Your task to perform on an android device: Turn on the flashlight Image 0: 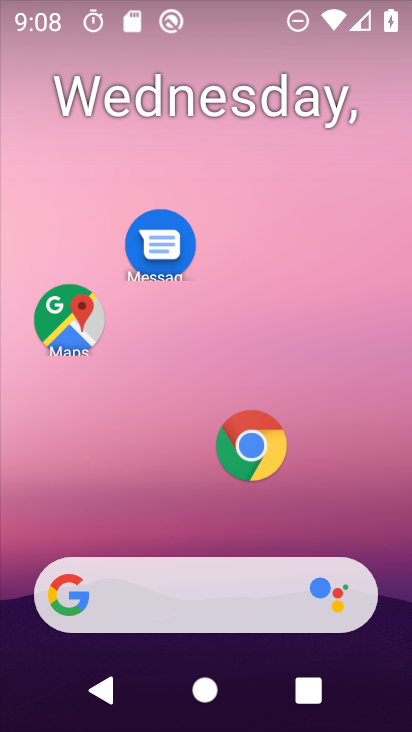
Step 0: press home button
Your task to perform on an android device: Turn on the flashlight Image 1: 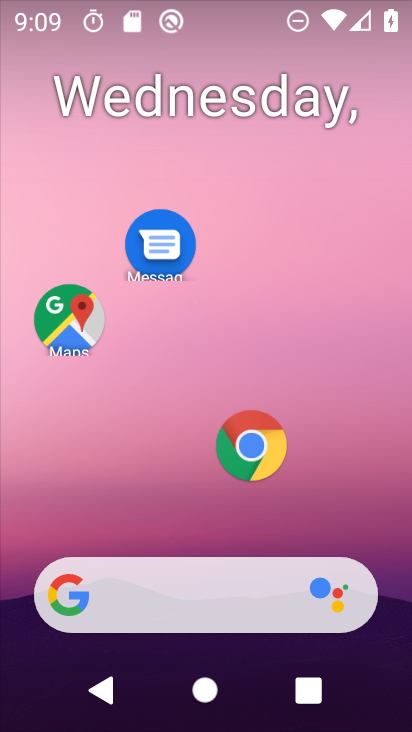
Step 1: task complete